Your task to perform on an android device: check android version Image 0: 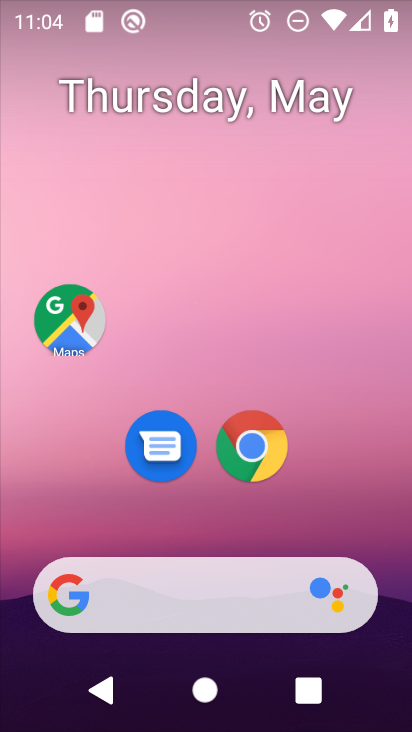
Step 0: drag from (205, 638) to (310, 214)
Your task to perform on an android device: check android version Image 1: 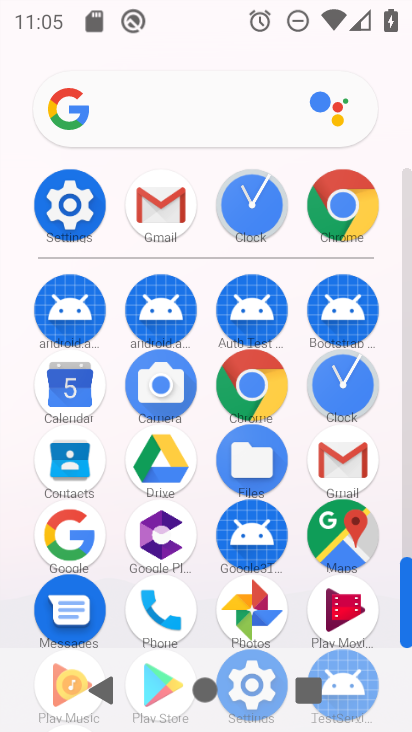
Step 1: click (57, 207)
Your task to perform on an android device: check android version Image 2: 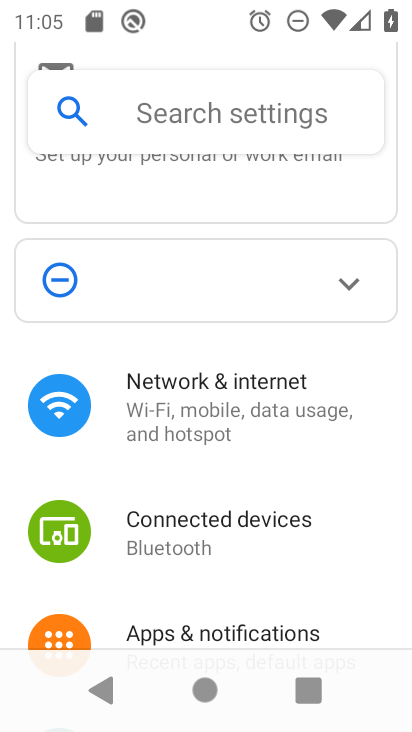
Step 2: click (198, 115)
Your task to perform on an android device: check android version Image 3: 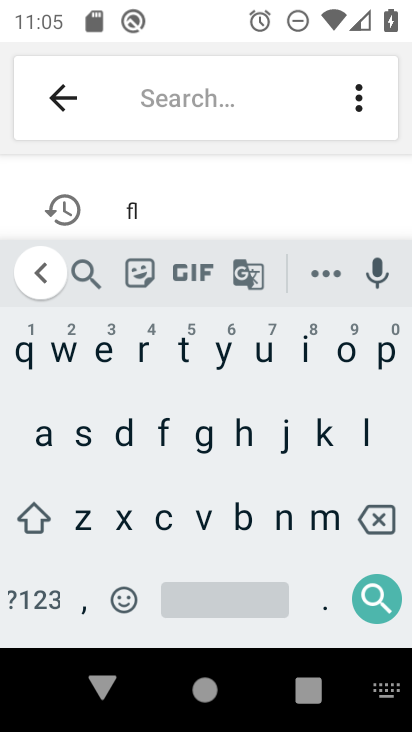
Step 3: click (40, 437)
Your task to perform on an android device: check android version Image 4: 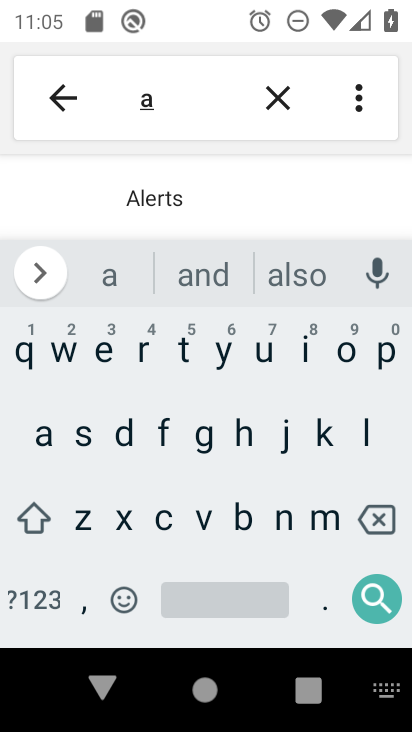
Step 4: click (283, 523)
Your task to perform on an android device: check android version Image 5: 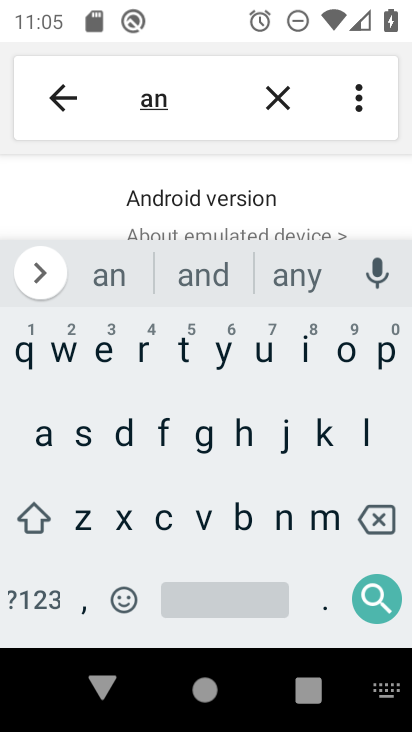
Step 5: click (205, 214)
Your task to perform on an android device: check android version Image 6: 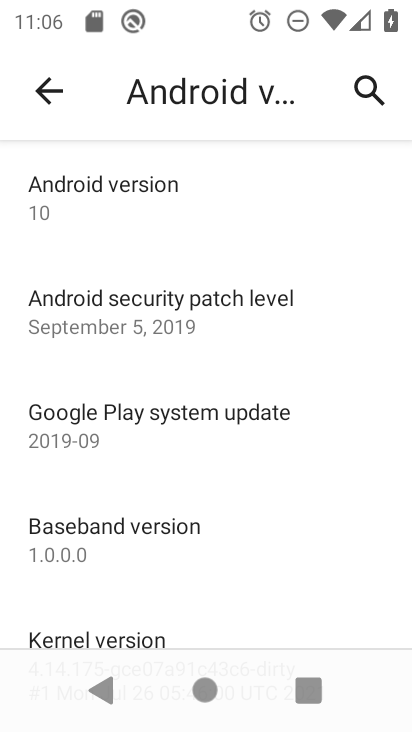
Step 6: click (194, 193)
Your task to perform on an android device: check android version Image 7: 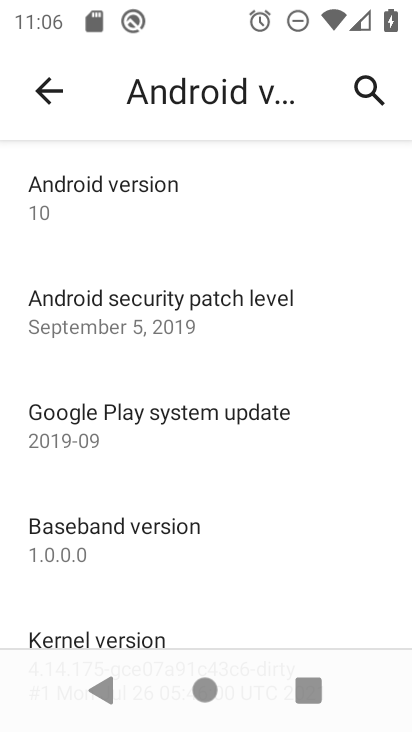
Step 7: task complete